Your task to perform on an android device: Find coffee shops on Maps Image 0: 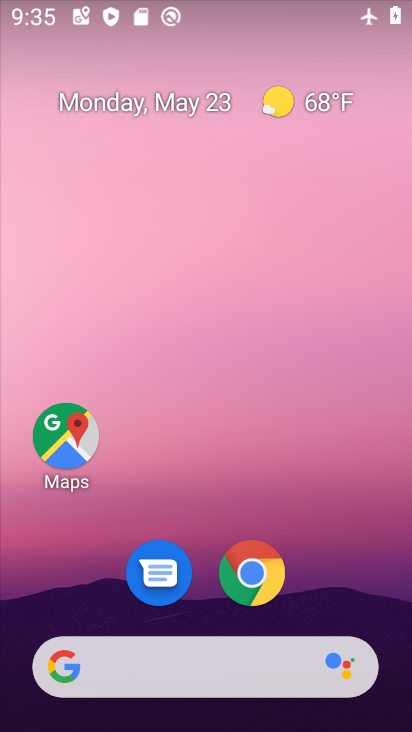
Step 0: drag from (257, 630) to (358, 120)
Your task to perform on an android device: Find coffee shops on Maps Image 1: 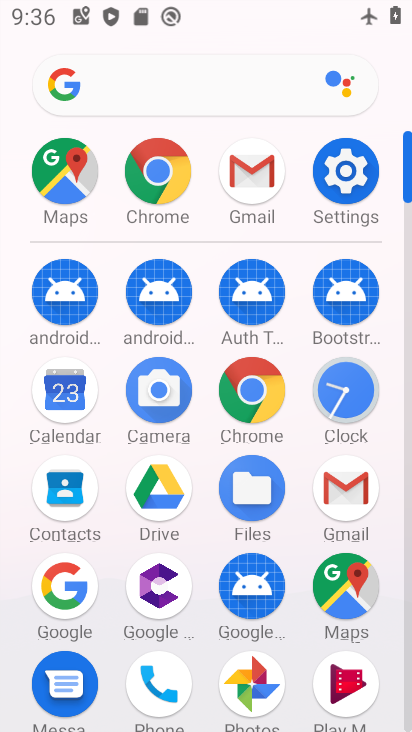
Step 1: click (349, 596)
Your task to perform on an android device: Find coffee shops on Maps Image 2: 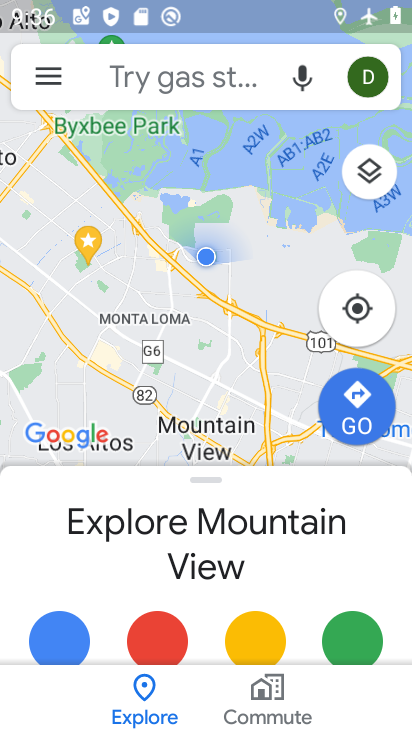
Step 2: task complete